Your task to perform on an android device: turn off airplane mode Image 0: 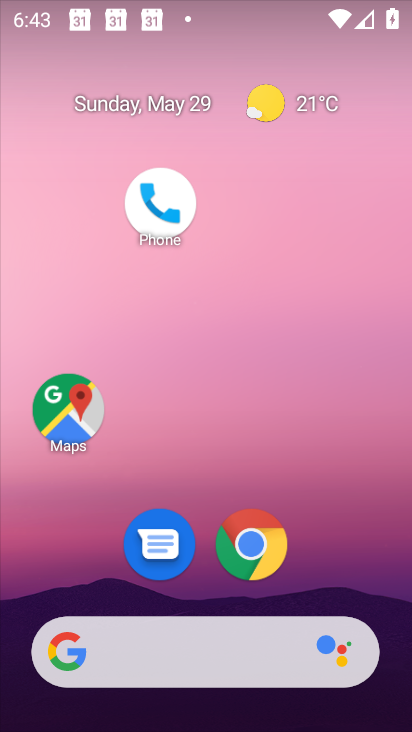
Step 0: drag from (331, 556) to (248, 12)
Your task to perform on an android device: turn off airplane mode Image 1: 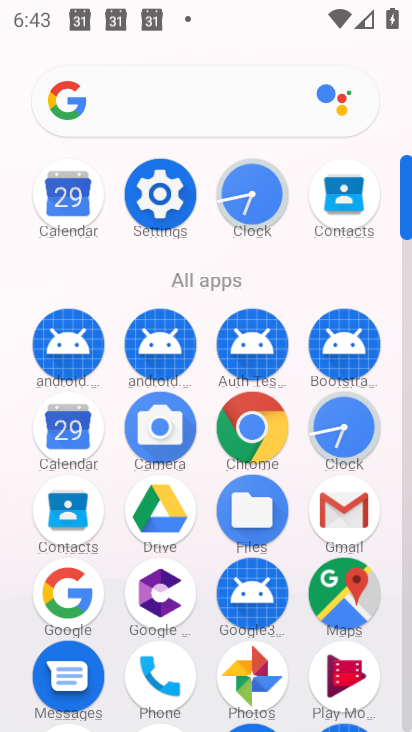
Step 1: click (138, 203)
Your task to perform on an android device: turn off airplane mode Image 2: 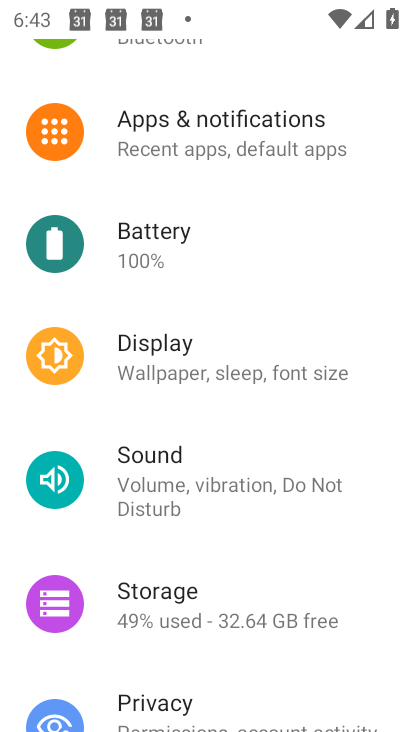
Step 2: drag from (220, 200) to (199, 357)
Your task to perform on an android device: turn off airplane mode Image 3: 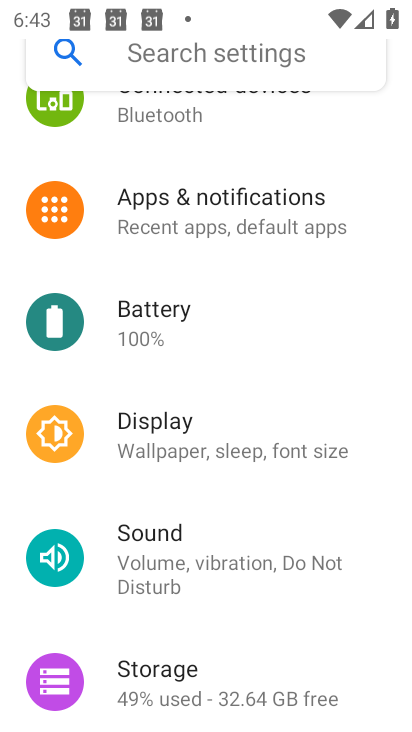
Step 3: drag from (249, 276) to (225, 629)
Your task to perform on an android device: turn off airplane mode Image 4: 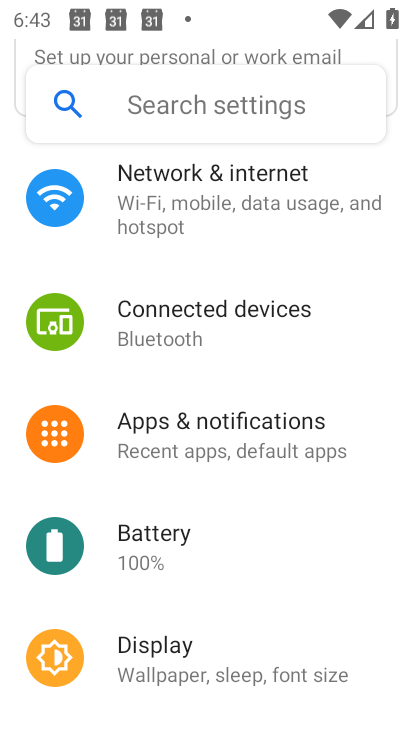
Step 4: click (202, 181)
Your task to perform on an android device: turn off airplane mode Image 5: 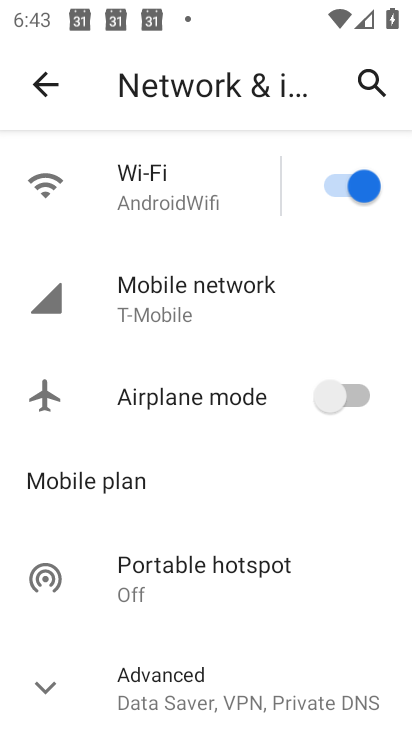
Step 5: task complete